Your task to perform on an android device: Show me recent news Image 0: 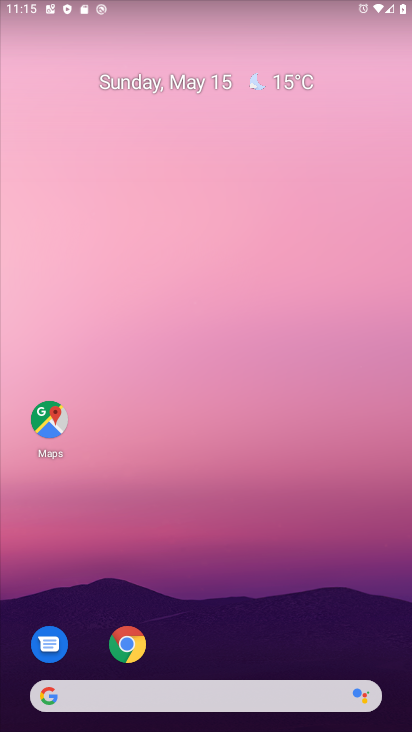
Step 0: drag from (245, 610) to (163, 100)
Your task to perform on an android device: Show me recent news Image 1: 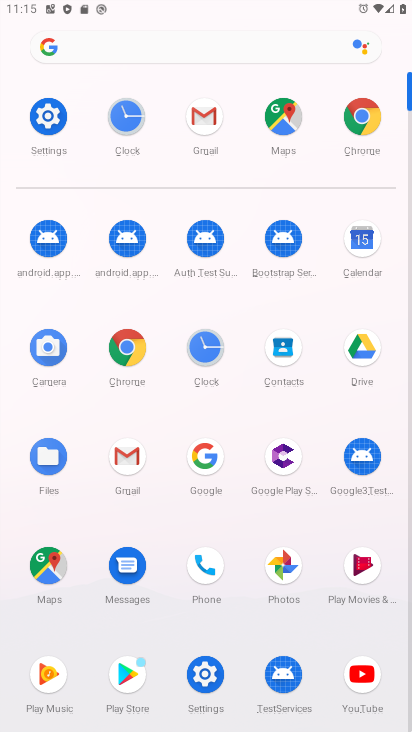
Step 1: click (212, 453)
Your task to perform on an android device: Show me recent news Image 2: 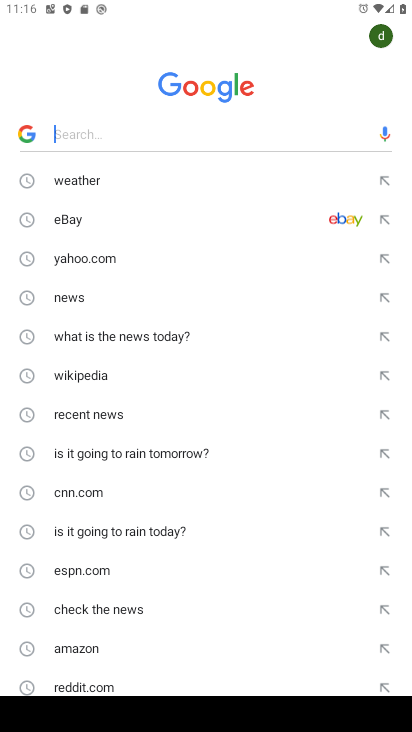
Step 2: click (133, 411)
Your task to perform on an android device: Show me recent news Image 3: 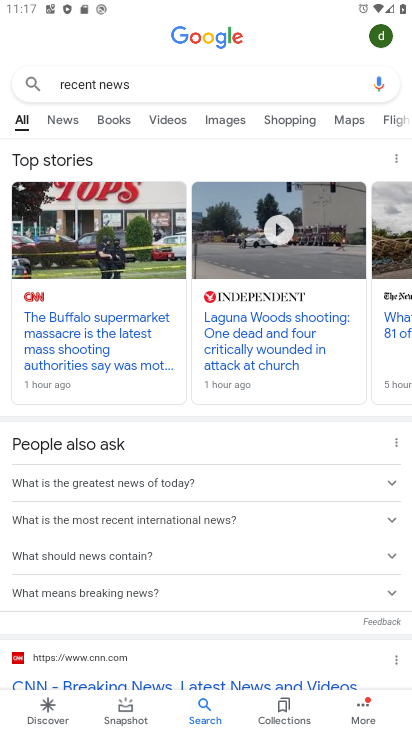
Step 3: task complete